Your task to perform on an android device: Open ESPN.com Image 0: 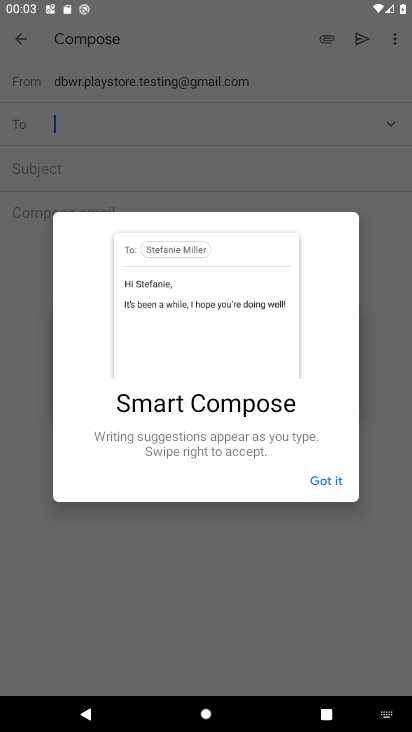
Step 0: press home button
Your task to perform on an android device: Open ESPN.com Image 1: 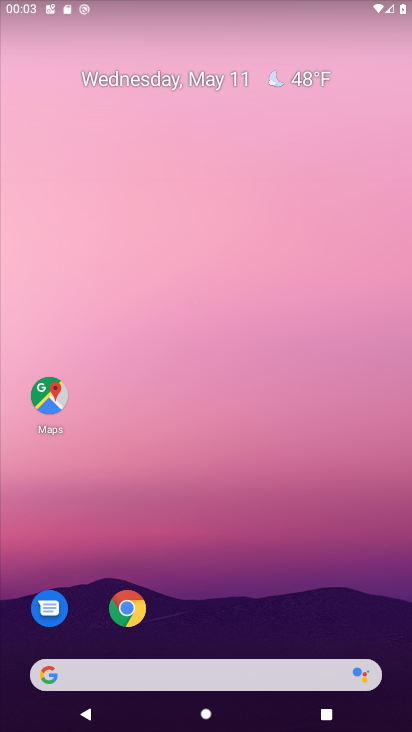
Step 1: click (146, 616)
Your task to perform on an android device: Open ESPN.com Image 2: 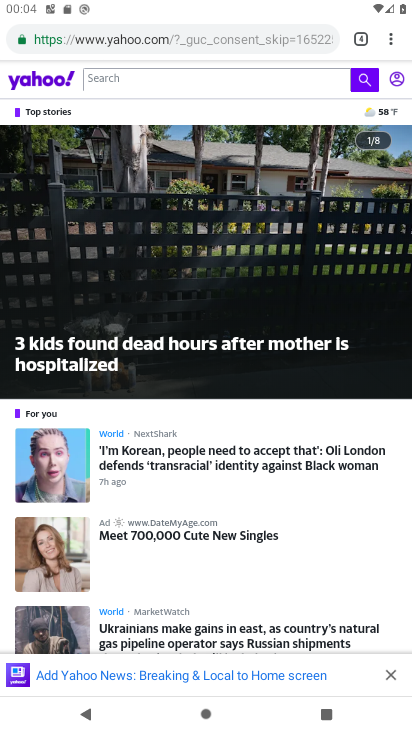
Step 2: click (357, 43)
Your task to perform on an android device: Open ESPN.com Image 3: 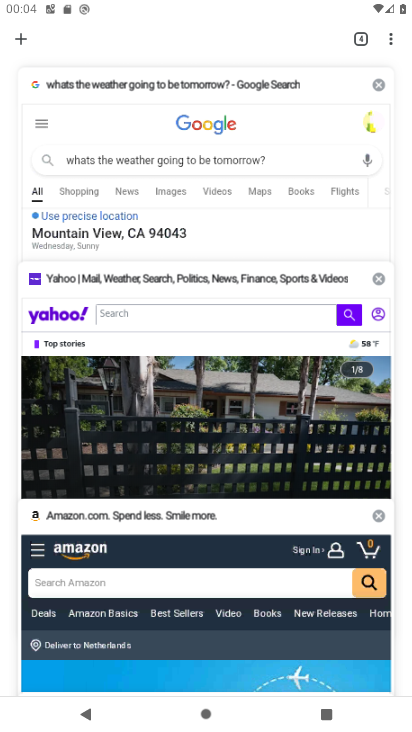
Step 3: click (18, 39)
Your task to perform on an android device: Open ESPN.com Image 4: 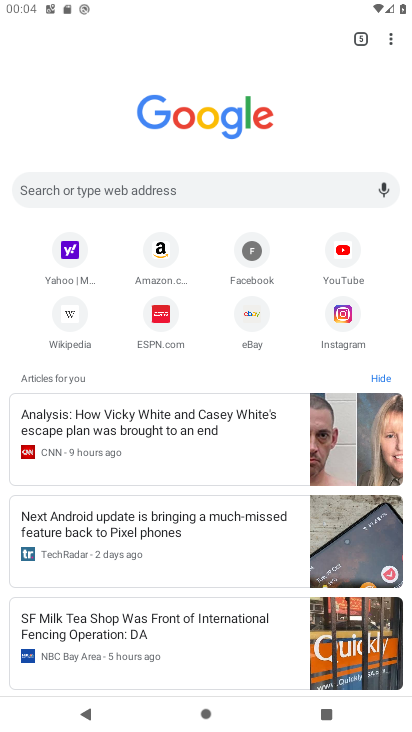
Step 4: click (164, 308)
Your task to perform on an android device: Open ESPN.com Image 5: 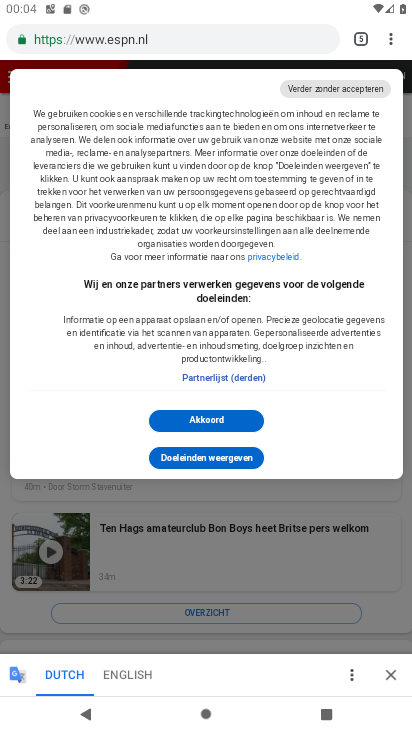
Step 5: task complete